Your task to perform on an android device: snooze an email in the gmail app Image 0: 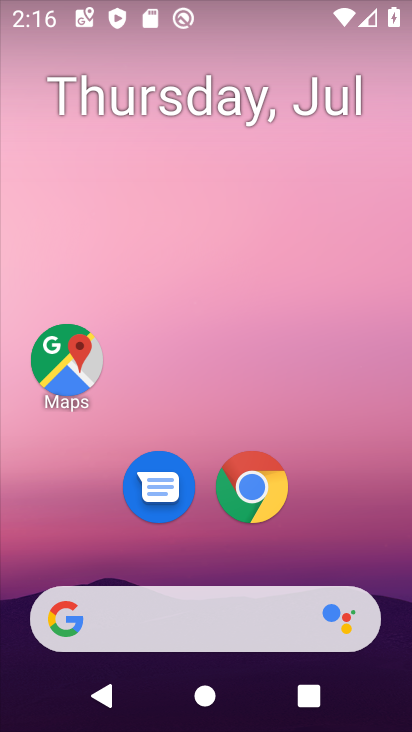
Step 0: drag from (358, 545) to (357, 154)
Your task to perform on an android device: snooze an email in the gmail app Image 1: 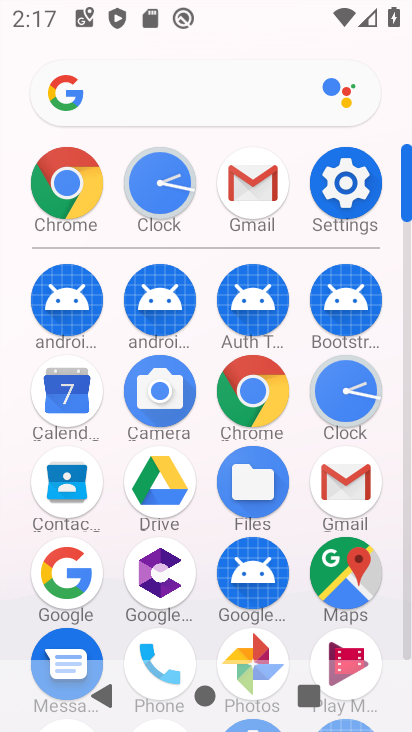
Step 1: click (347, 478)
Your task to perform on an android device: snooze an email in the gmail app Image 2: 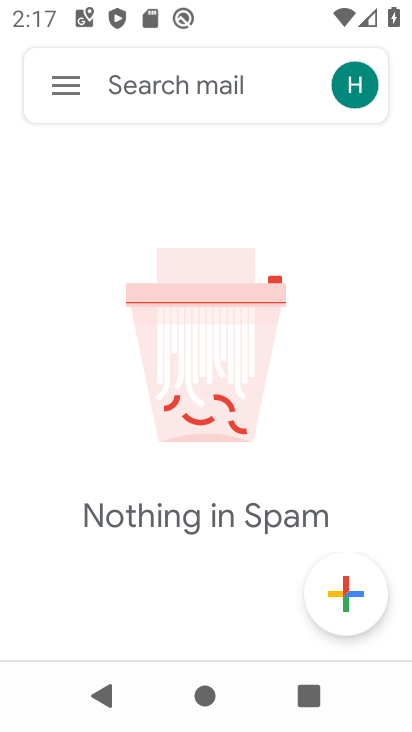
Step 2: click (59, 85)
Your task to perform on an android device: snooze an email in the gmail app Image 3: 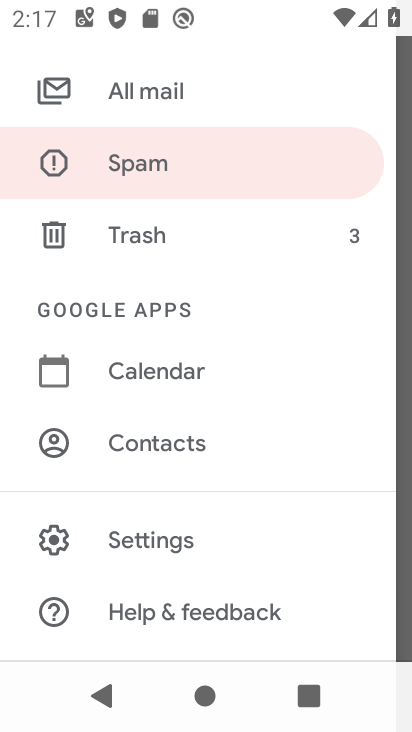
Step 3: drag from (280, 271) to (289, 384)
Your task to perform on an android device: snooze an email in the gmail app Image 4: 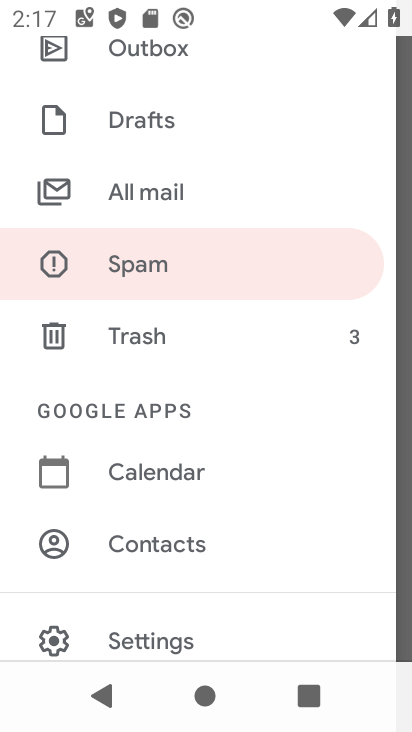
Step 4: drag from (294, 262) to (295, 369)
Your task to perform on an android device: snooze an email in the gmail app Image 5: 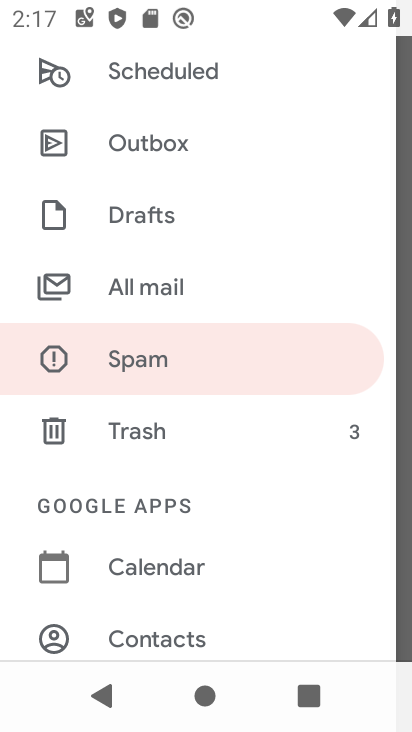
Step 5: drag from (304, 203) to (306, 330)
Your task to perform on an android device: snooze an email in the gmail app Image 6: 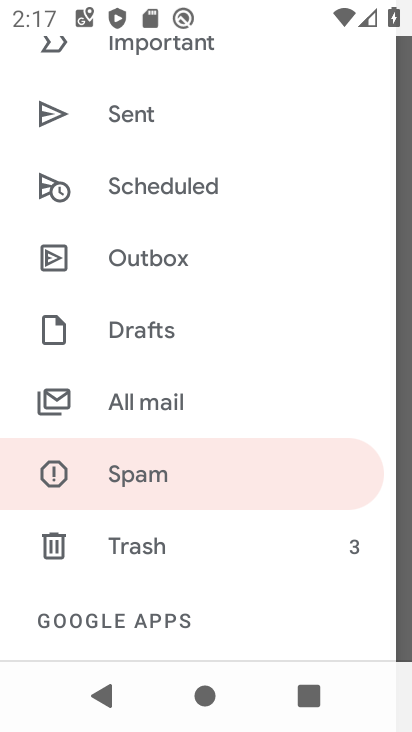
Step 6: drag from (305, 150) to (303, 269)
Your task to perform on an android device: snooze an email in the gmail app Image 7: 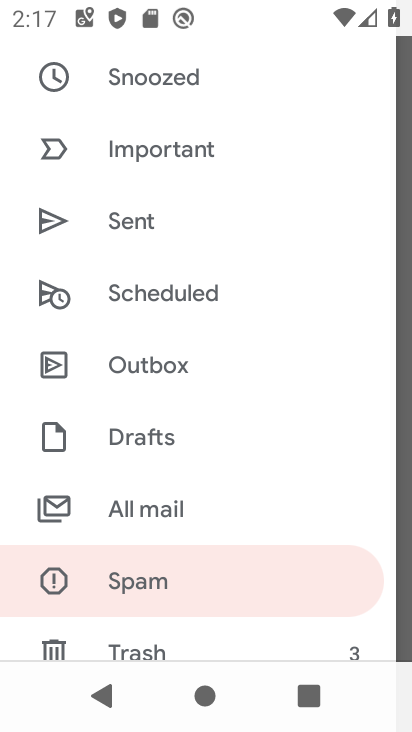
Step 7: drag from (306, 136) to (304, 262)
Your task to perform on an android device: snooze an email in the gmail app Image 8: 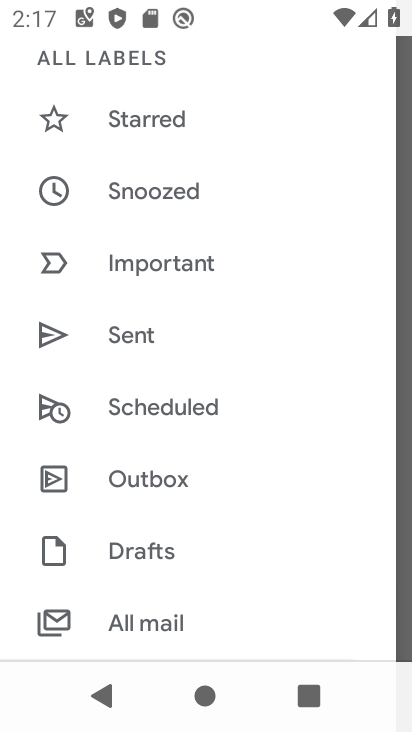
Step 8: drag from (308, 146) to (316, 277)
Your task to perform on an android device: snooze an email in the gmail app Image 9: 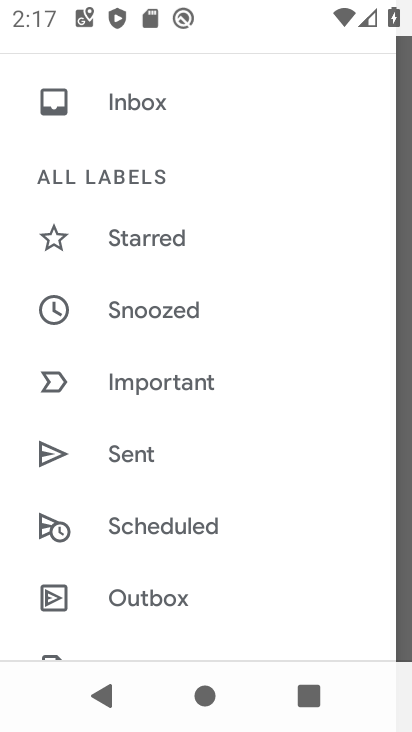
Step 9: click (185, 313)
Your task to perform on an android device: snooze an email in the gmail app Image 10: 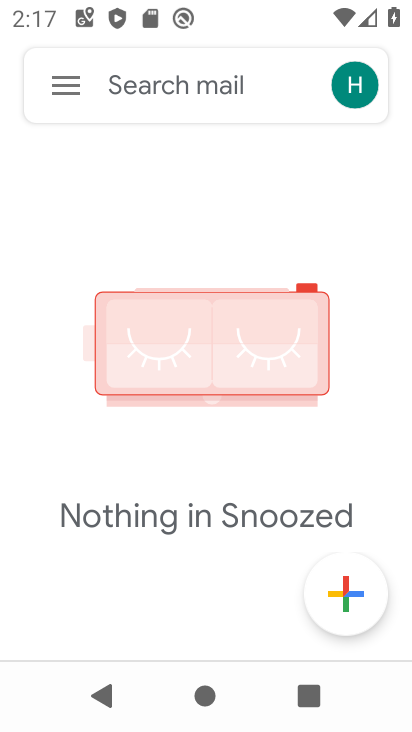
Step 10: task complete